Your task to perform on an android device: set the stopwatch Image 0: 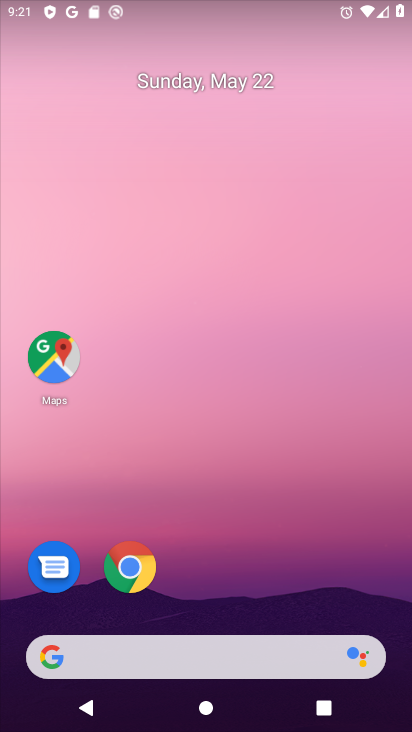
Step 0: drag from (209, 584) to (209, 4)
Your task to perform on an android device: set the stopwatch Image 1: 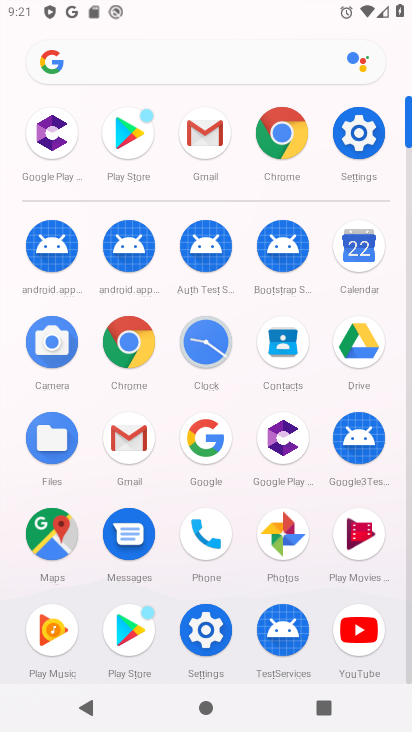
Step 1: click (201, 351)
Your task to perform on an android device: set the stopwatch Image 2: 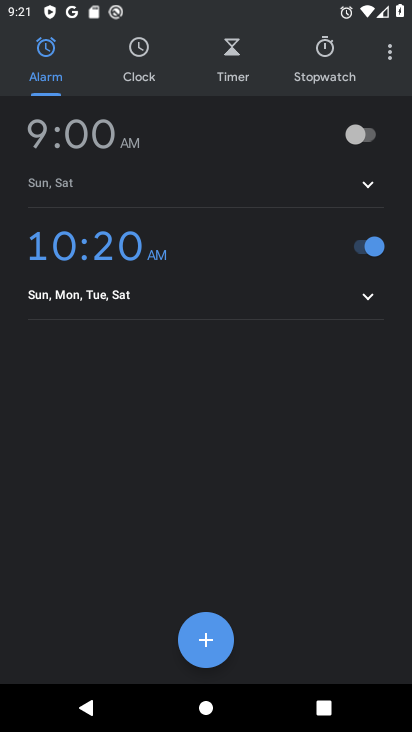
Step 2: click (321, 65)
Your task to perform on an android device: set the stopwatch Image 3: 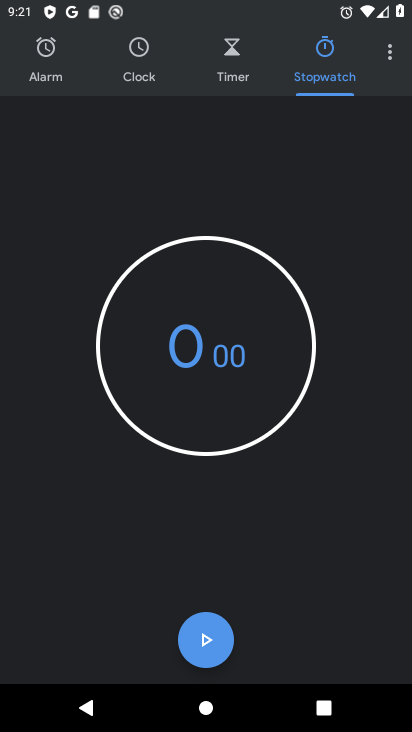
Step 3: click (207, 644)
Your task to perform on an android device: set the stopwatch Image 4: 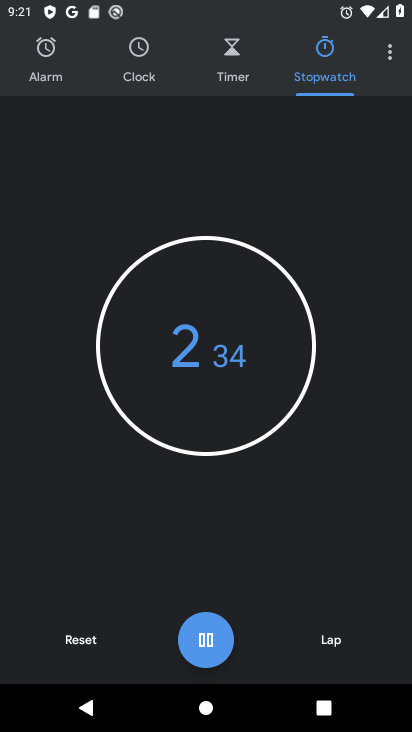
Step 4: task complete